Your task to perform on an android device: Go to battery settings Image 0: 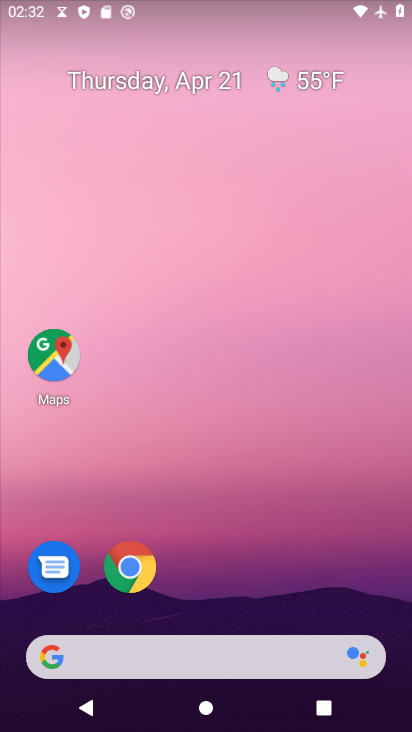
Step 0: drag from (170, 655) to (180, 90)
Your task to perform on an android device: Go to battery settings Image 1: 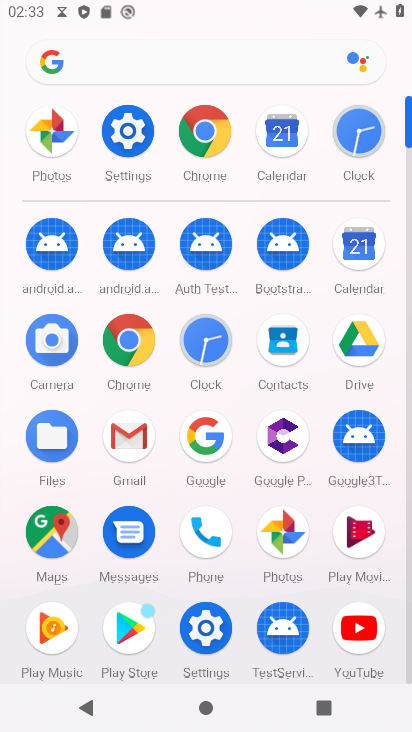
Step 1: click (122, 142)
Your task to perform on an android device: Go to battery settings Image 2: 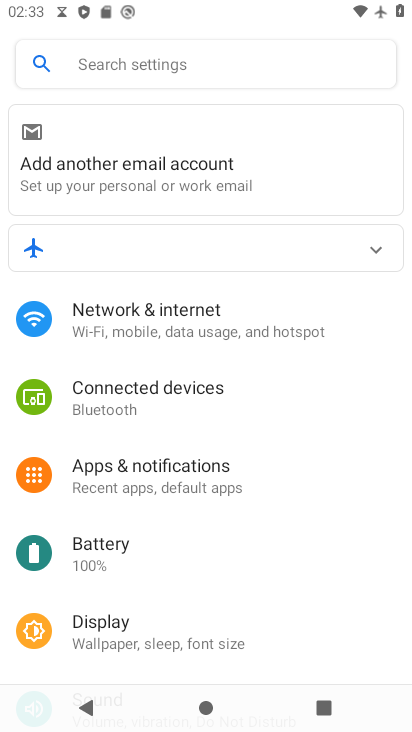
Step 2: click (103, 551)
Your task to perform on an android device: Go to battery settings Image 3: 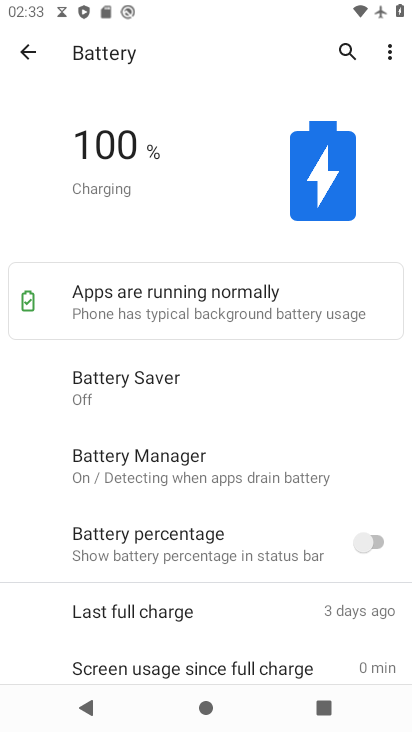
Step 3: task complete